Your task to perform on an android device: Go to eBay Image 0: 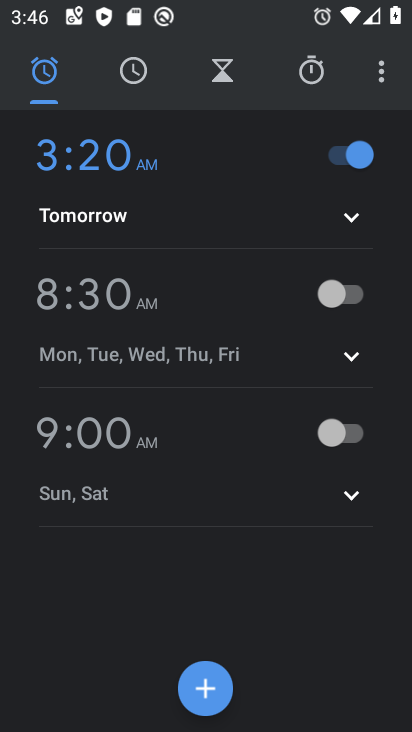
Step 0: press home button
Your task to perform on an android device: Go to eBay Image 1: 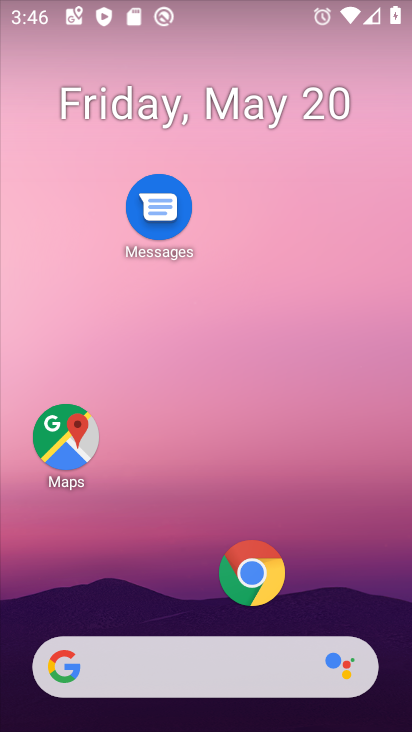
Step 1: drag from (173, 611) to (240, 43)
Your task to perform on an android device: Go to eBay Image 2: 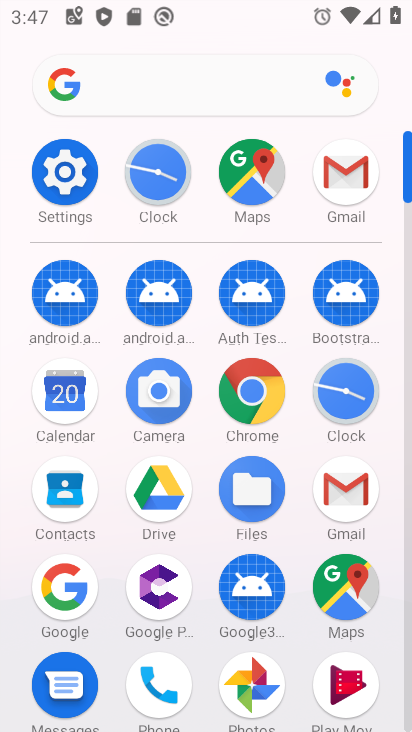
Step 2: click (240, 375)
Your task to perform on an android device: Go to eBay Image 3: 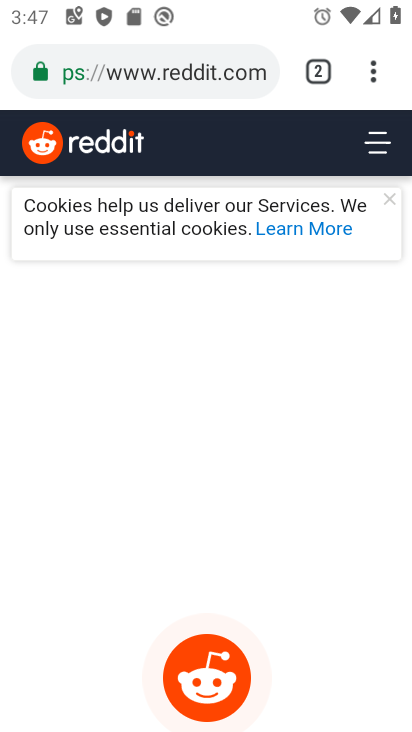
Step 3: click (310, 61)
Your task to perform on an android device: Go to eBay Image 4: 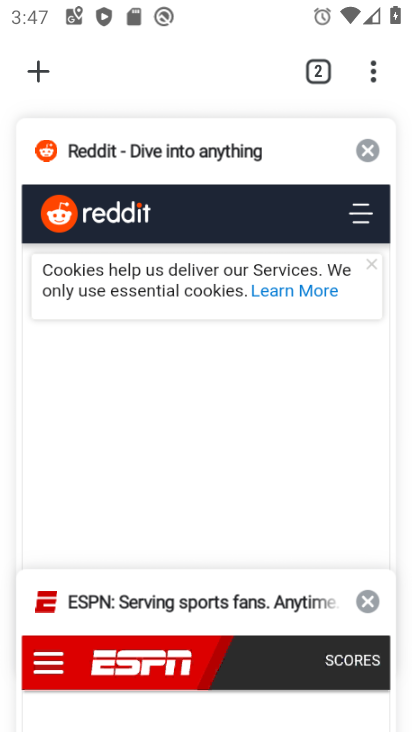
Step 4: click (42, 62)
Your task to perform on an android device: Go to eBay Image 5: 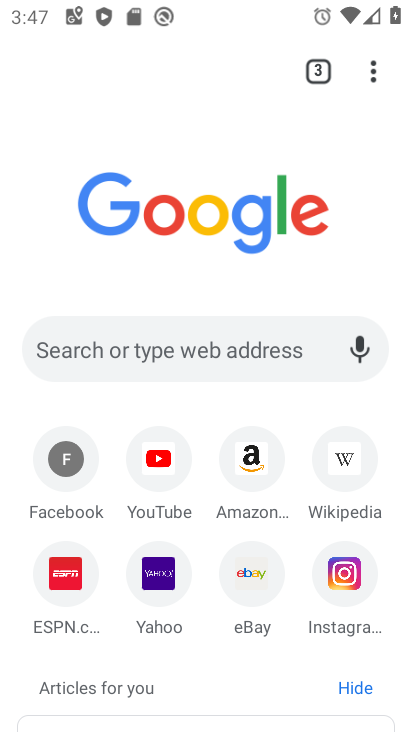
Step 5: click (240, 587)
Your task to perform on an android device: Go to eBay Image 6: 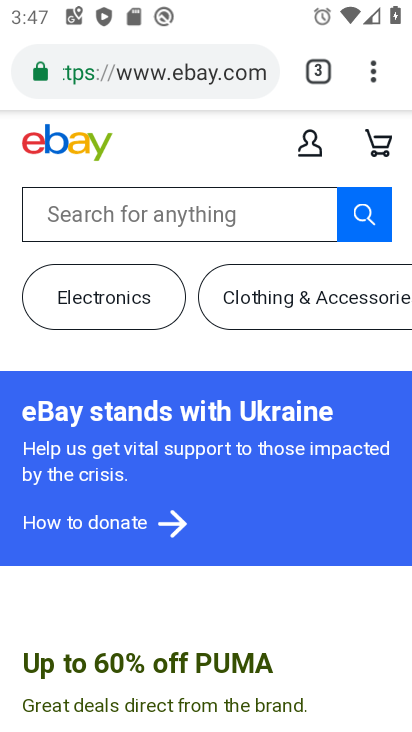
Step 6: task complete